Your task to perform on an android device: turn on bluetooth scan Image 0: 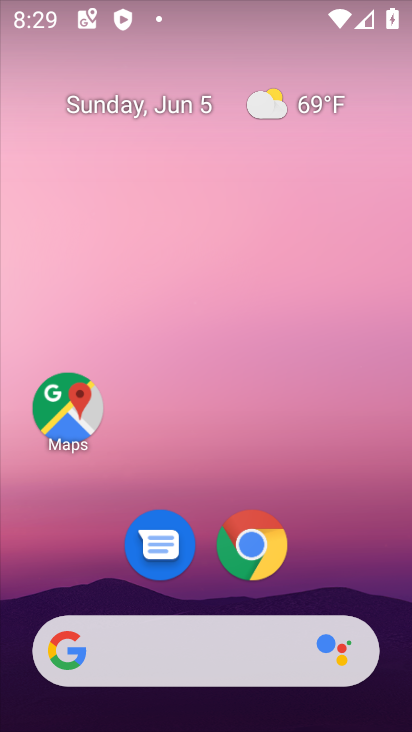
Step 0: drag from (356, 587) to (362, 259)
Your task to perform on an android device: turn on bluetooth scan Image 1: 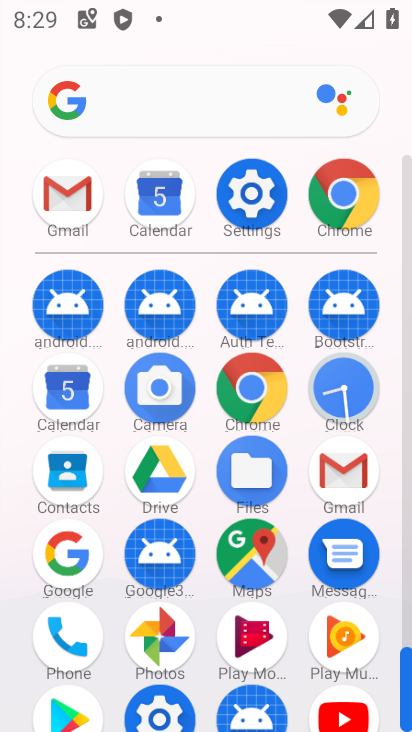
Step 1: click (261, 215)
Your task to perform on an android device: turn on bluetooth scan Image 2: 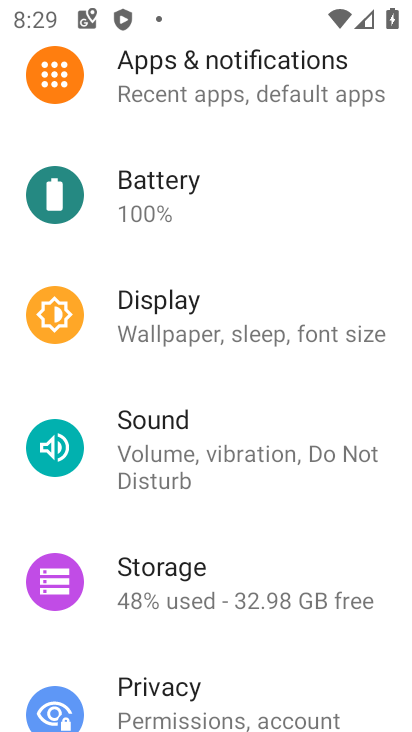
Step 2: drag from (361, 238) to (362, 338)
Your task to perform on an android device: turn on bluetooth scan Image 3: 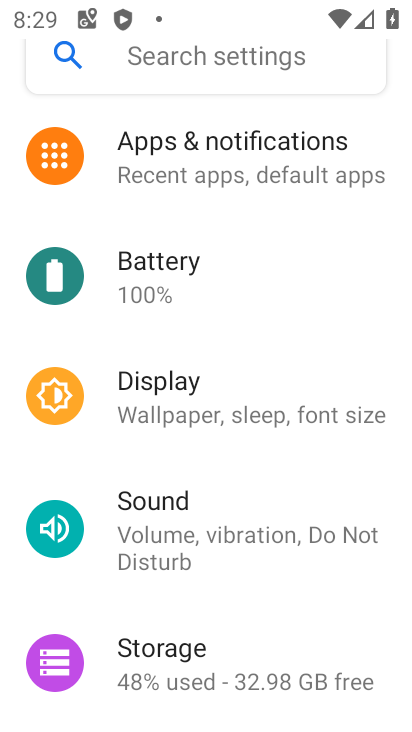
Step 3: drag from (360, 254) to (367, 429)
Your task to perform on an android device: turn on bluetooth scan Image 4: 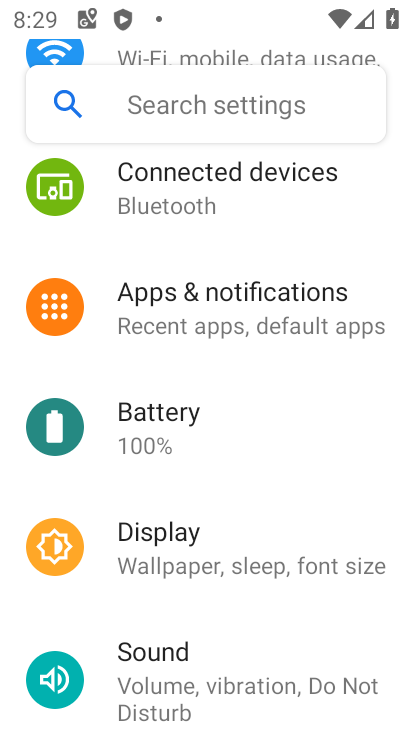
Step 4: drag from (369, 215) to (374, 384)
Your task to perform on an android device: turn on bluetooth scan Image 5: 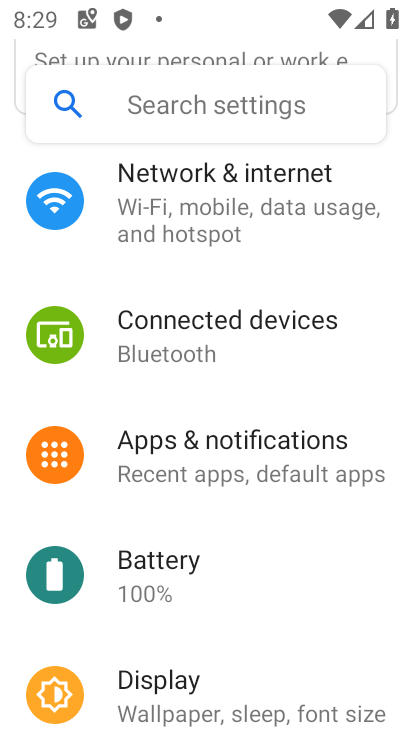
Step 5: drag from (382, 167) to (386, 504)
Your task to perform on an android device: turn on bluetooth scan Image 6: 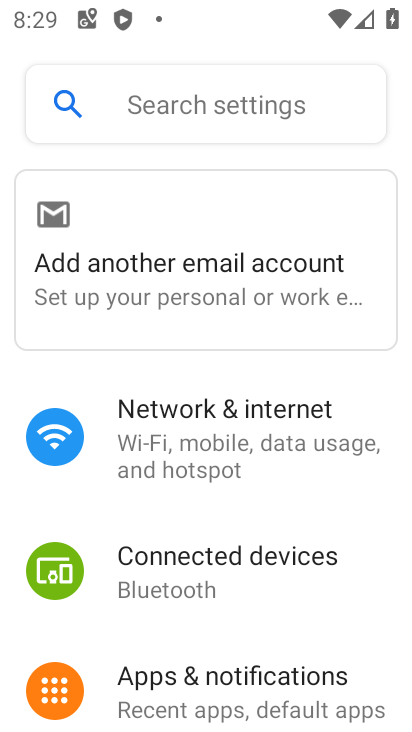
Step 6: drag from (378, 523) to (381, 389)
Your task to perform on an android device: turn on bluetooth scan Image 7: 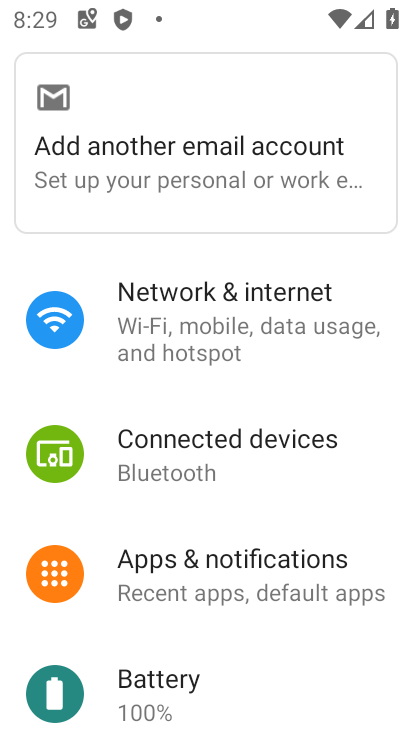
Step 7: drag from (380, 511) to (377, 393)
Your task to perform on an android device: turn on bluetooth scan Image 8: 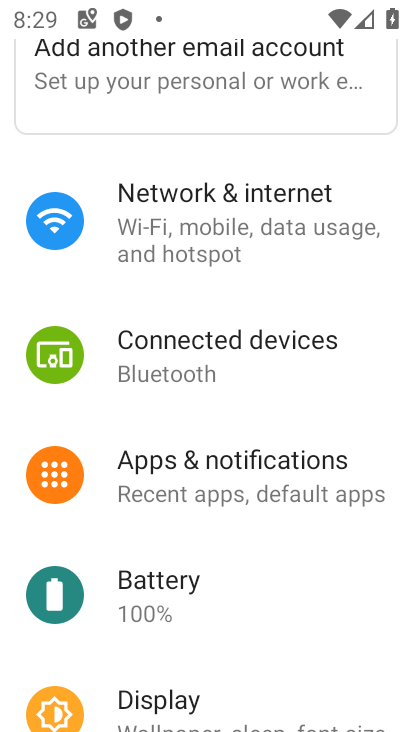
Step 8: drag from (378, 537) to (381, 417)
Your task to perform on an android device: turn on bluetooth scan Image 9: 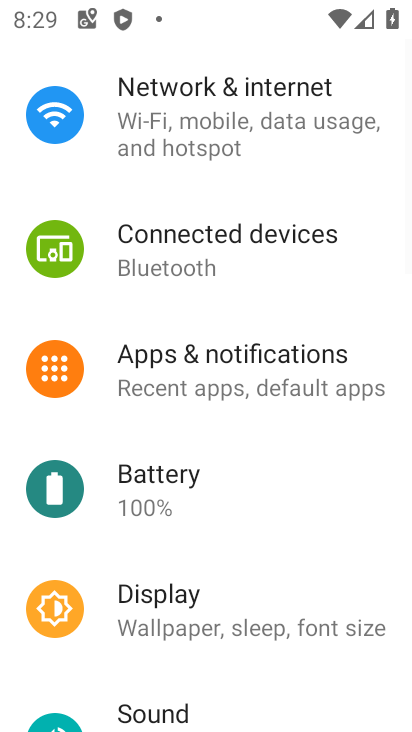
Step 9: drag from (372, 526) to (378, 432)
Your task to perform on an android device: turn on bluetooth scan Image 10: 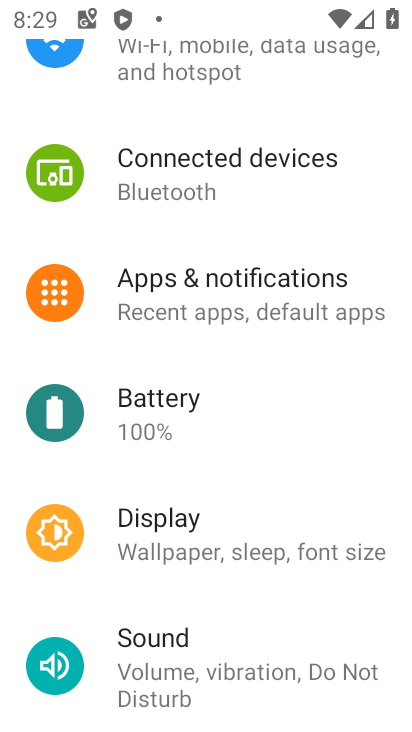
Step 10: drag from (367, 520) to (367, 410)
Your task to perform on an android device: turn on bluetooth scan Image 11: 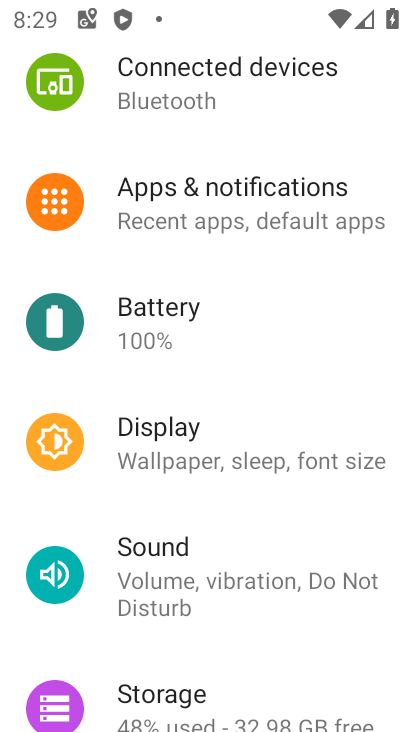
Step 11: drag from (378, 529) to (369, 380)
Your task to perform on an android device: turn on bluetooth scan Image 12: 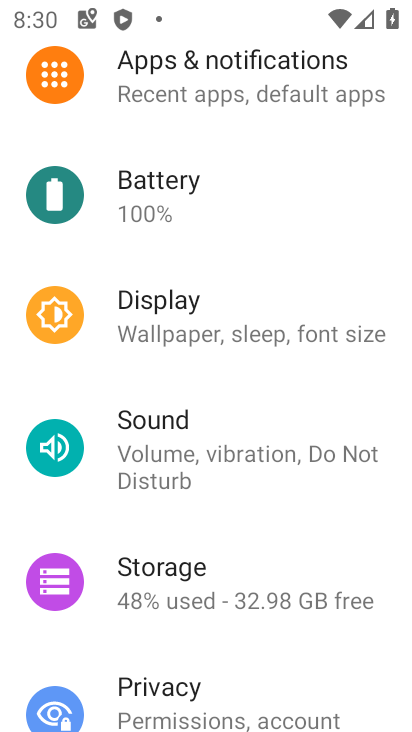
Step 12: drag from (377, 536) to (381, 409)
Your task to perform on an android device: turn on bluetooth scan Image 13: 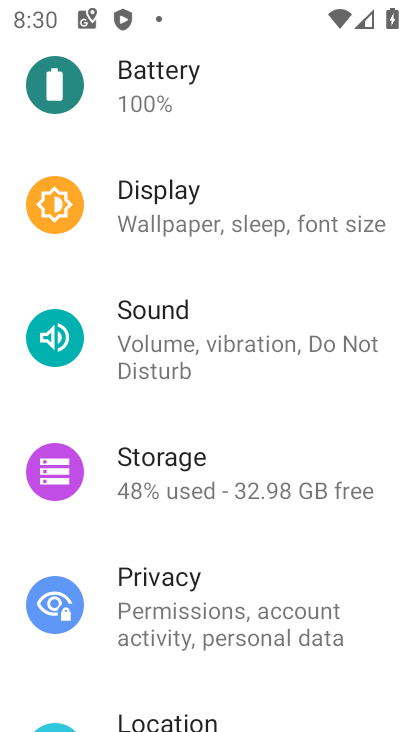
Step 13: drag from (372, 553) to (374, 432)
Your task to perform on an android device: turn on bluetooth scan Image 14: 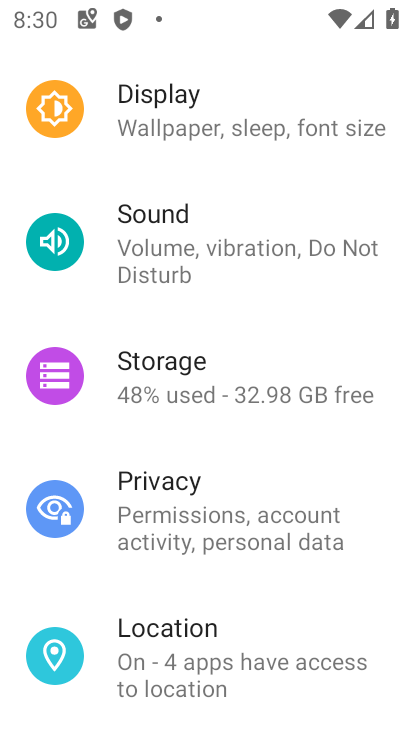
Step 14: drag from (376, 566) to (373, 442)
Your task to perform on an android device: turn on bluetooth scan Image 15: 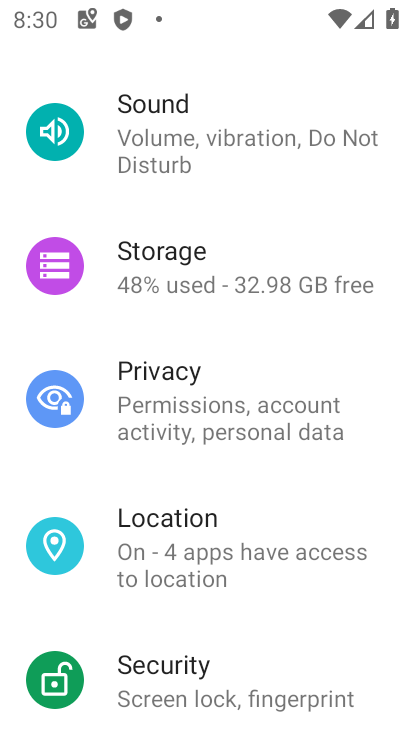
Step 15: drag from (362, 595) to (374, 430)
Your task to perform on an android device: turn on bluetooth scan Image 16: 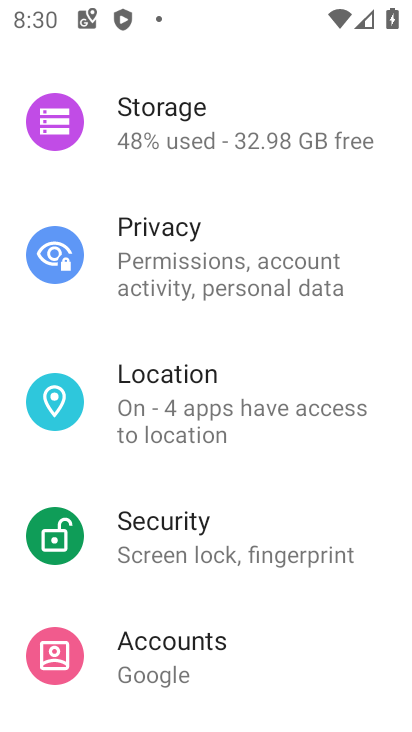
Step 16: click (305, 425)
Your task to perform on an android device: turn on bluetooth scan Image 17: 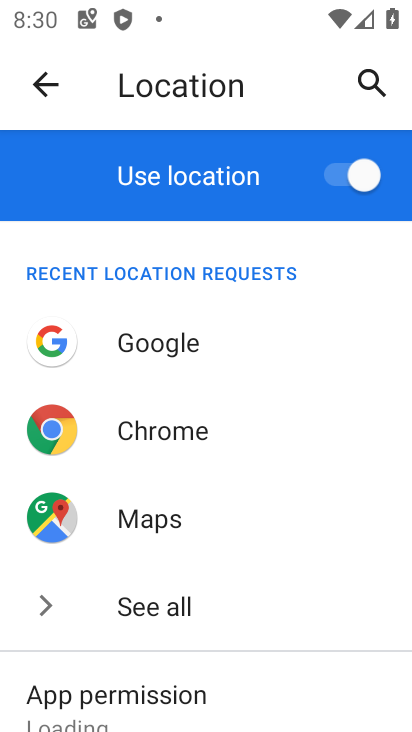
Step 17: drag from (317, 563) to (327, 353)
Your task to perform on an android device: turn on bluetooth scan Image 18: 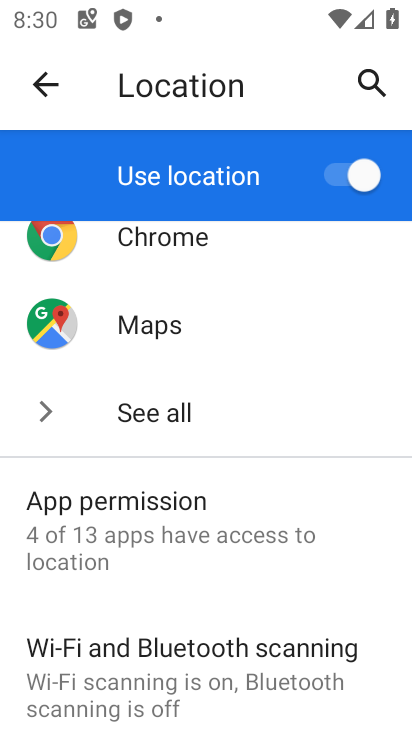
Step 18: drag from (326, 583) to (338, 349)
Your task to perform on an android device: turn on bluetooth scan Image 19: 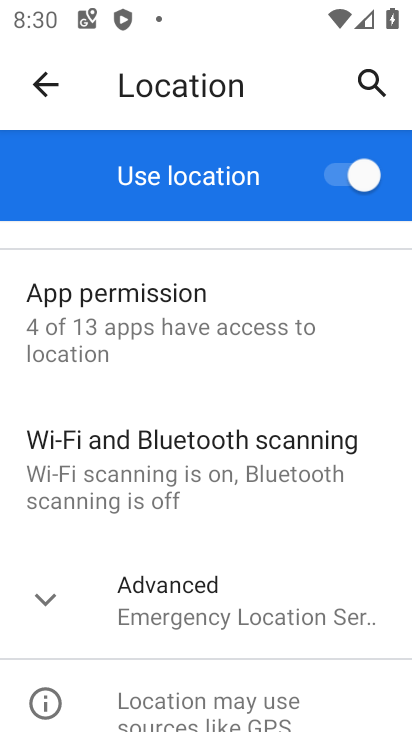
Step 19: click (340, 458)
Your task to perform on an android device: turn on bluetooth scan Image 20: 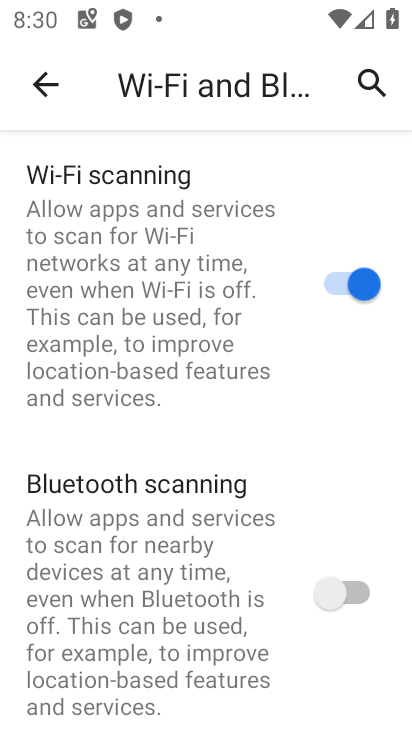
Step 20: drag from (290, 637) to (304, 426)
Your task to perform on an android device: turn on bluetooth scan Image 21: 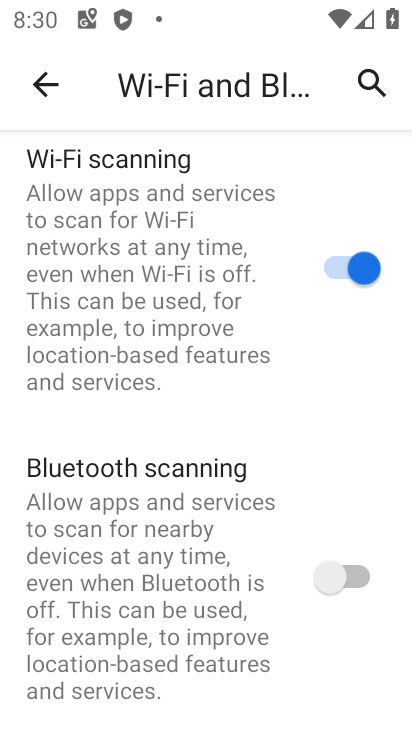
Step 21: click (342, 584)
Your task to perform on an android device: turn on bluetooth scan Image 22: 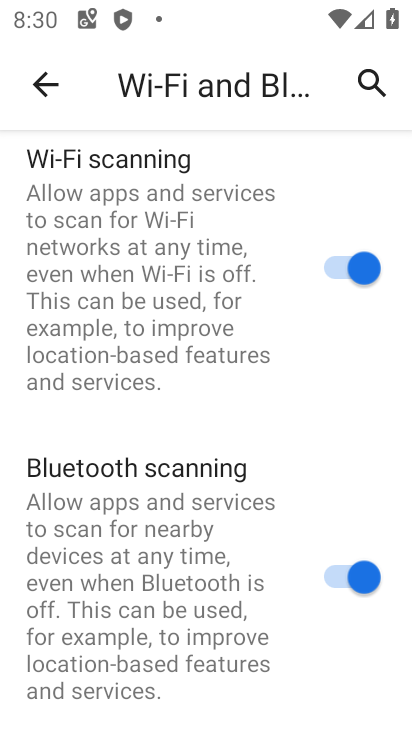
Step 22: task complete